Your task to perform on an android device: toggle sleep mode Image 0: 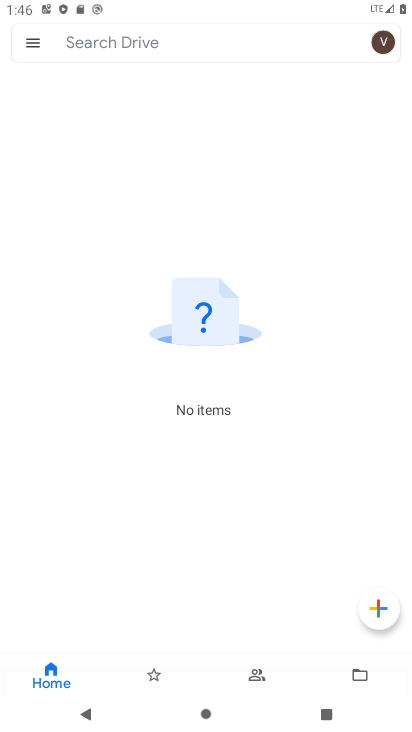
Step 0: press home button
Your task to perform on an android device: toggle sleep mode Image 1: 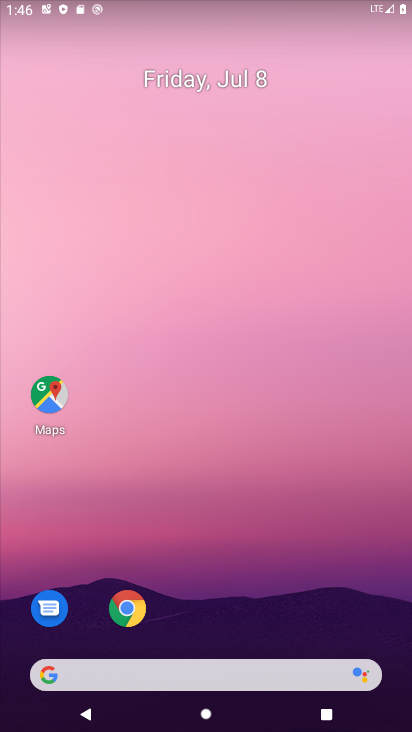
Step 1: drag from (270, 594) to (266, 107)
Your task to perform on an android device: toggle sleep mode Image 2: 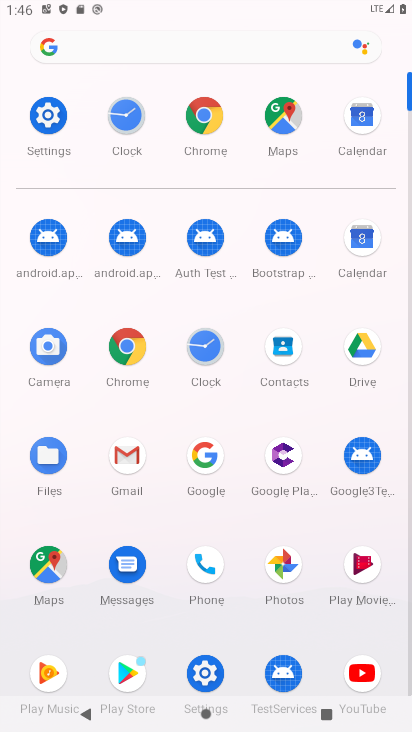
Step 2: click (205, 672)
Your task to perform on an android device: toggle sleep mode Image 3: 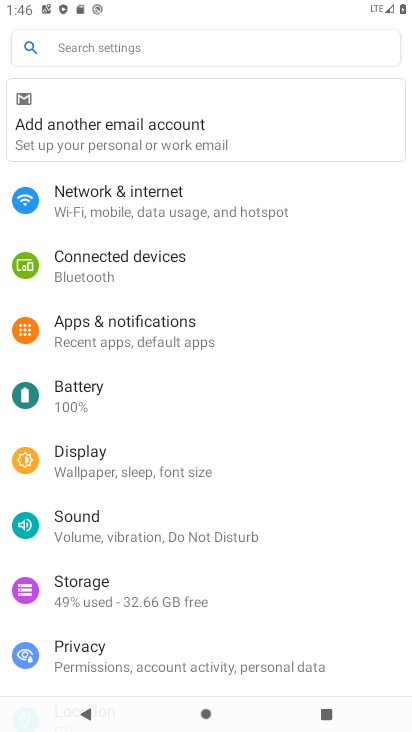
Step 3: click (91, 457)
Your task to perform on an android device: toggle sleep mode Image 4: 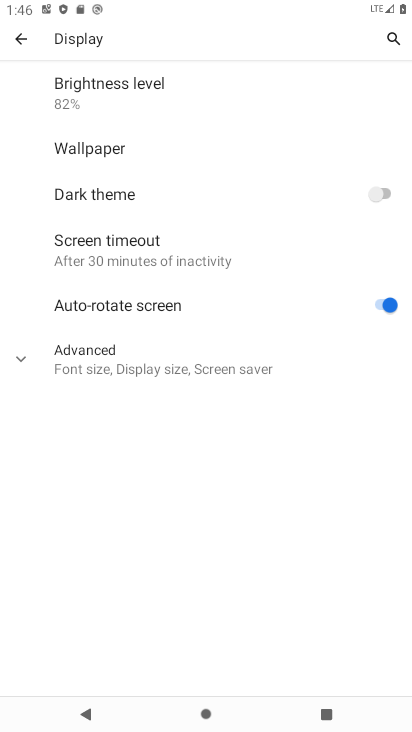
Step 4: click (21, 358)
Your task to perform on an android device: toggle sleep mode Image 5: 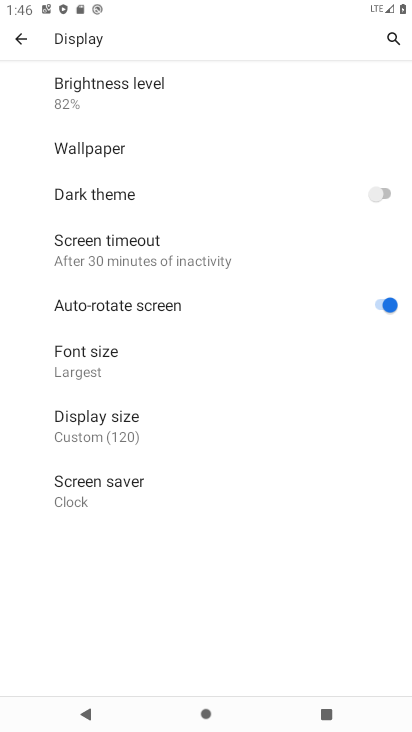
Step 5: task complete